Your task to perform on an android device: turn on priority inbox in the gmail app Image 0: 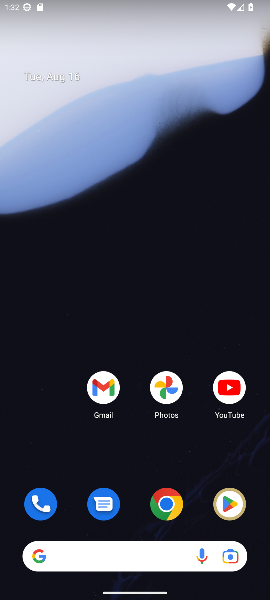
Step 0: click (103, 388)
Your task to perform on an android device: turn on priority inbox in the gmail app Image 1: 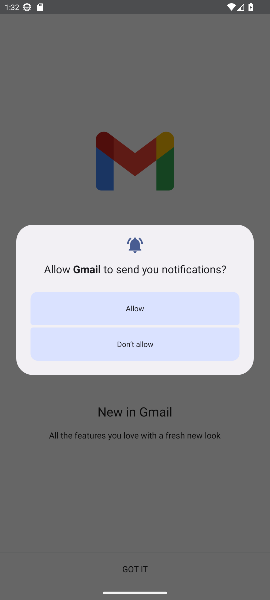
Step 1: click (129, 307)
Your task to perform on an android device: turn on priority inbox in the gmail app Image 2: 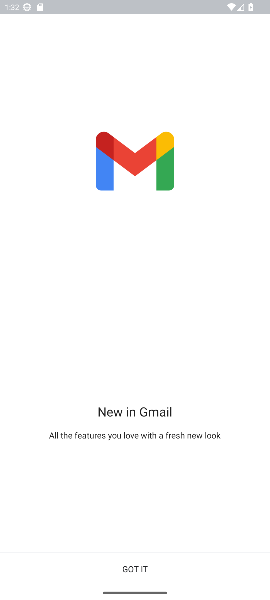
Step 2: click (136, 564)
Your task to perform on an android device: turn on priority inbox in the gmail app Image 3: 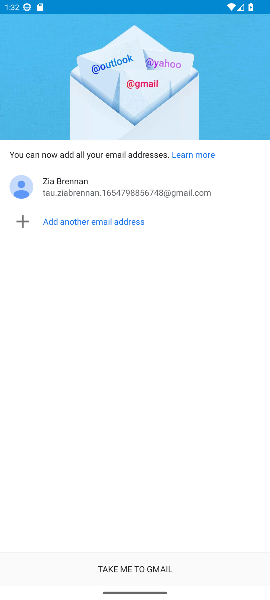
Step 3: click (136, 564)
Your task to perform on an android device: turn on priority inbox in the gmail app Image 4: 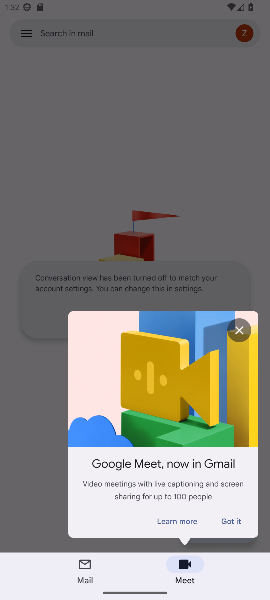
Step 4: click (241, 330)
Your task to perform on an android device: turn on priority inbox in the gmail app Image 5: 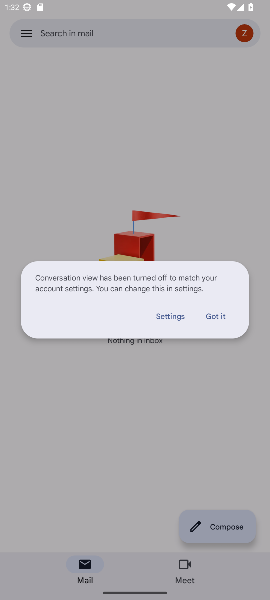
Step 5: click (211, 314)
Your task to perform on an android device: turn on priority inbox in the gmail app Image 6: 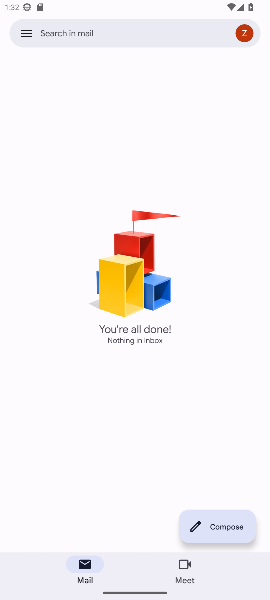
Step 6: click (25, 32)
Your task to perform on an android device: turn on priority inbox in the gmail app Image 7: 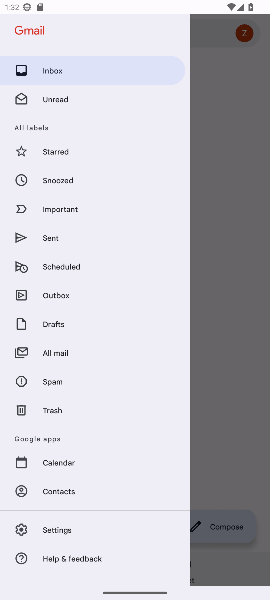
Step 7: click (56, 527)
Your task to perform on an android device: turn on priority inbox in the gmail app Image 8: 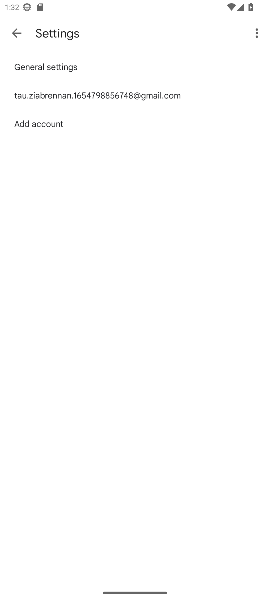
Step 8: click (52, 92)
Your task to perform on an android device: turn on priority inbox in the gmail app Image 9: 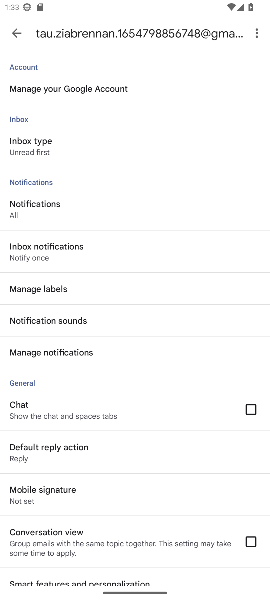
Step 9: click (30, 142)
Your task to perform on an android device: turn on priority inbox in the gmail app Image 10: 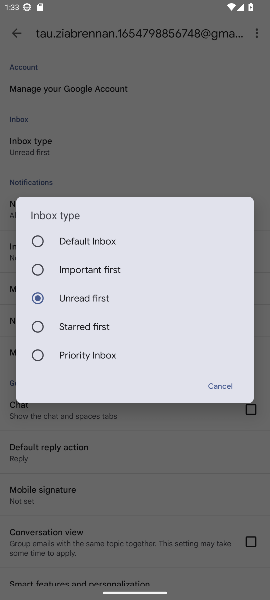
Step 10: click (36, 355)
Your task to perform on an android device: turn on priority inbox in the gmail app Image 11: 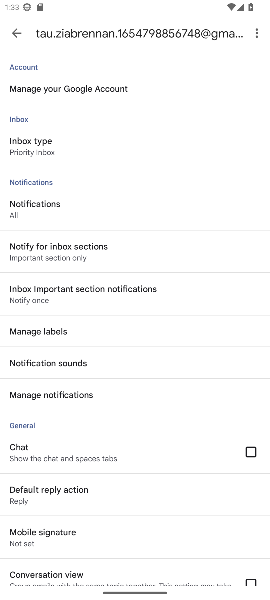
Step 11: task complete